Your task to perform on an android device: Check the weather Image 0: 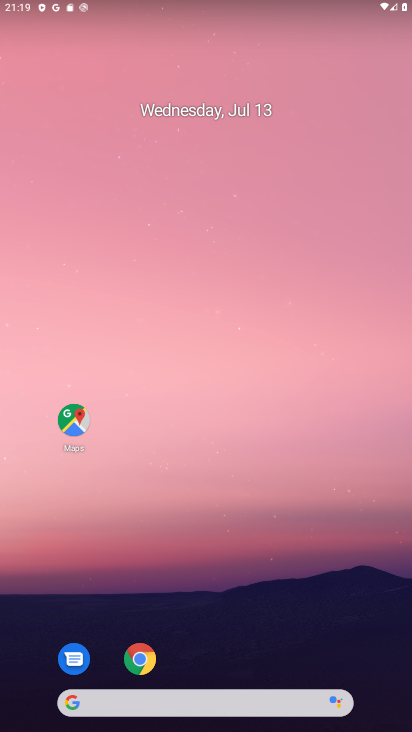
Step 0: click (146, 666)
Your task to perform on an android device: Check the weather Image 1: 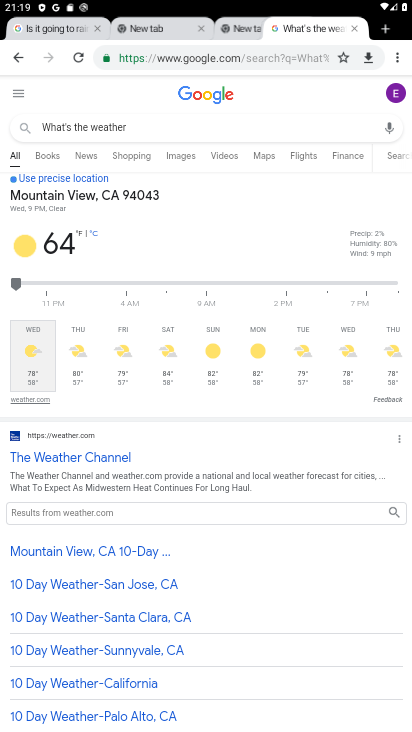
Step 1: press home button
Your task to perform on an android device: Check the weather Image 2: 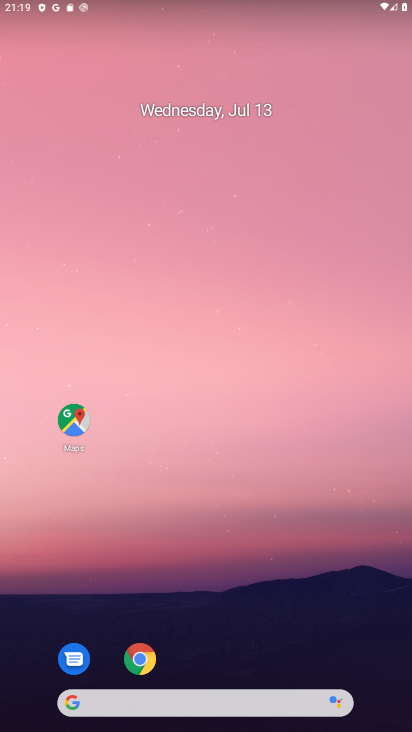
Step 2: drag from (240, 634) to (241, 181)
Your task to perform on an android device: Check the weather Image 3: 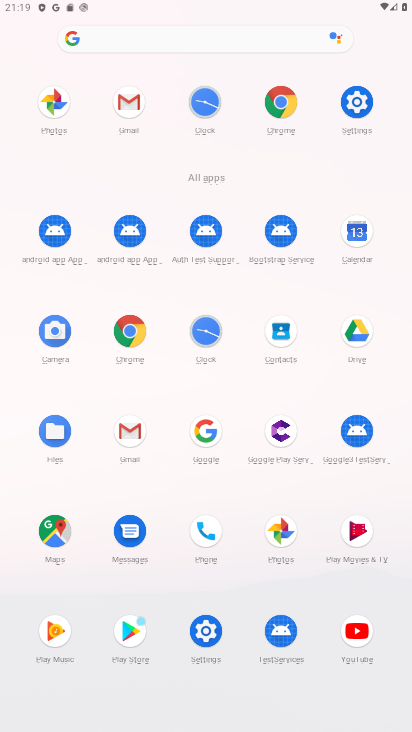
Step 3: click (278, 96)
Your task to perform on an android device: Check the weather Image 4: 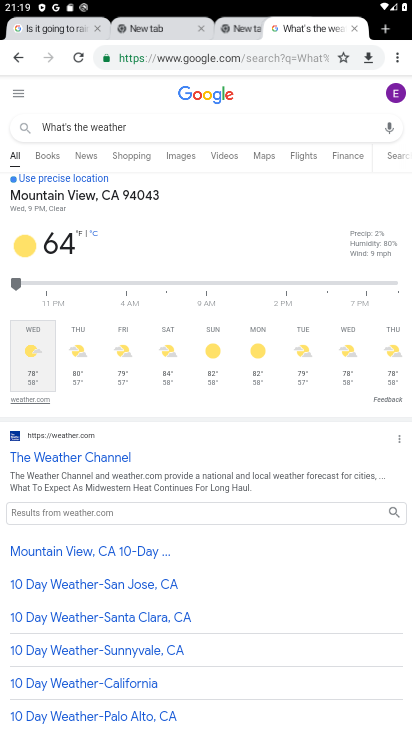
Step 4: click (385, 26)
Your task to perform on an android device: Check the weather Image 5: 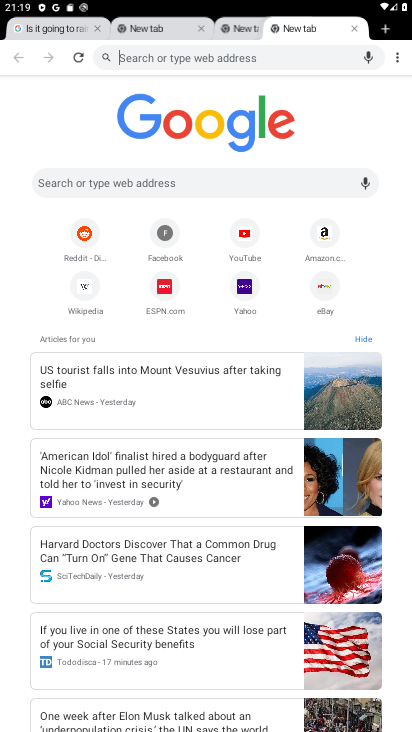
Step 5: click (185, 175)
Your task to perform on an android device: Check the weather Image 6: 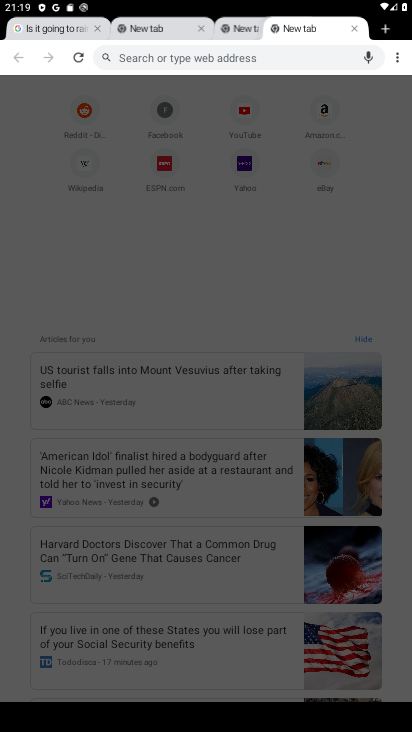
Step 6: type "Check the weather "
Your task to perform on an android device: Check the weather Image 7: 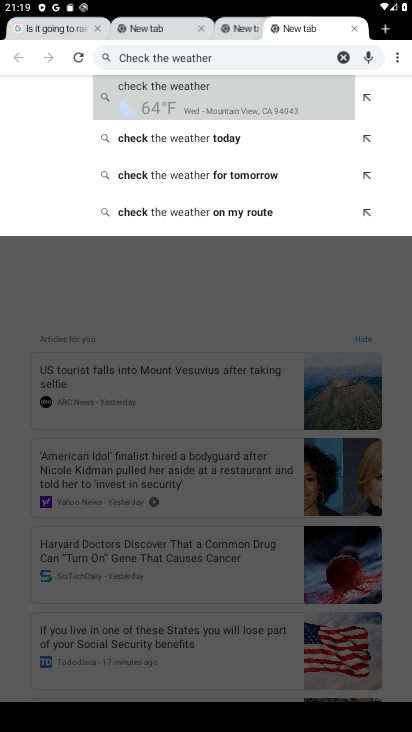
Step 7: click (193, 86)
Your task to perform on an android device: Check the weather Image 8: 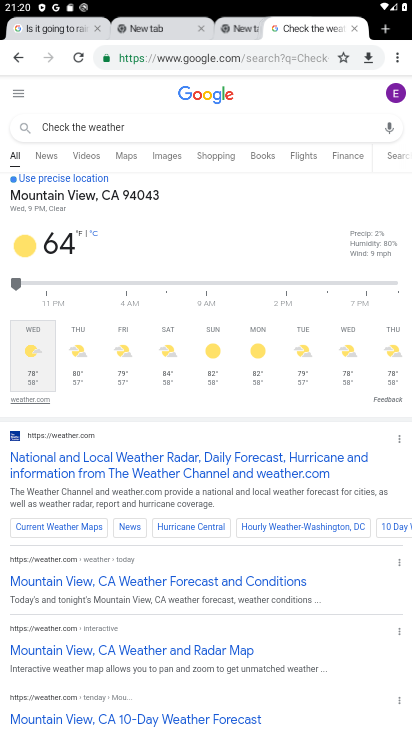
Step 8: task complete